Your task to perform on an android device: Open Amazon Image 0: 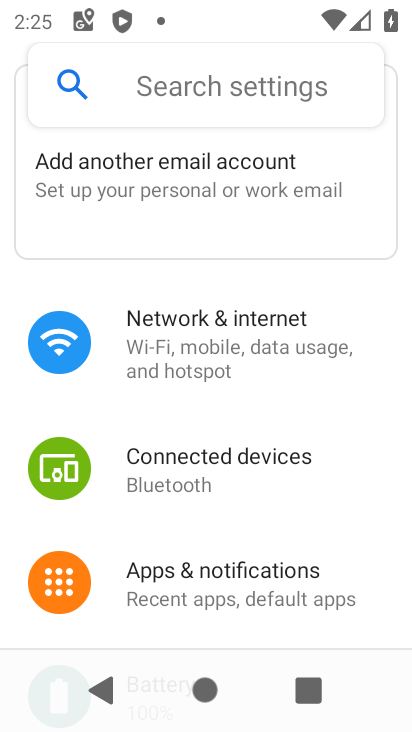
Step 0: press home button
Your task to perform on an android device: Open Amazon Image 1: 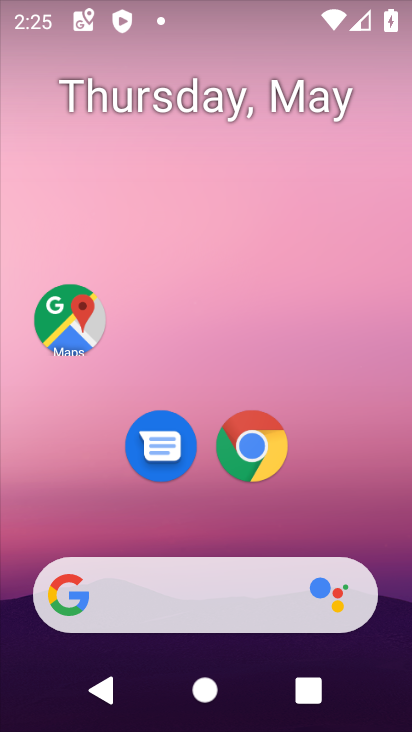
Step 1: click (246, 452)
Your task to perform on an android device: Open Amazon Image 2: 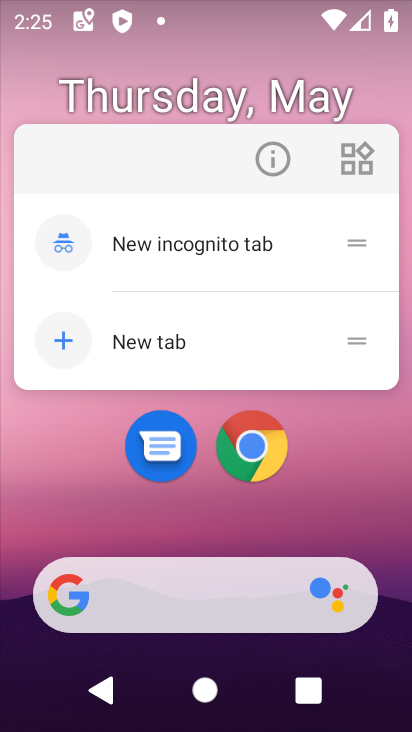
Step 2: click (242, 446)
Your task to perform on an android device: Open Amazon Image 3: 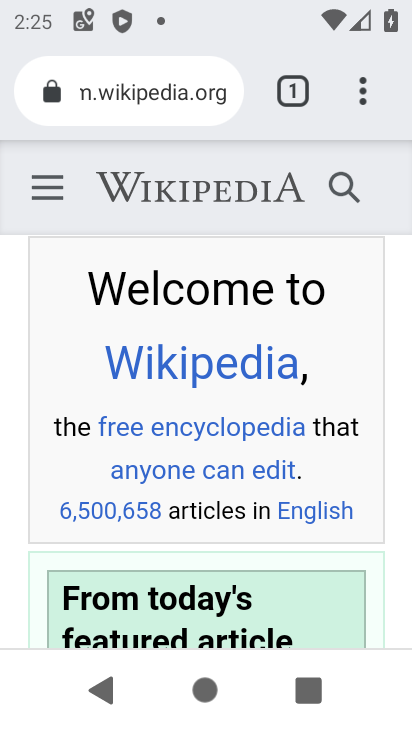
Step 3: click (112, 94)
Your task to perform on an android device: Open Amazon Image 4: 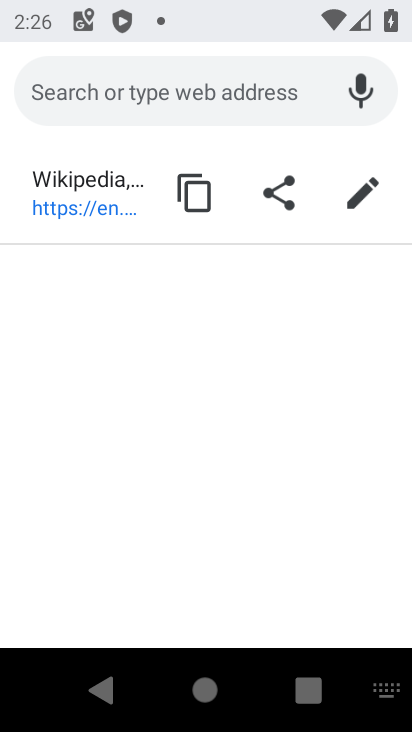
Step 4: type "amazon"
Your task to perform on an android device: Open Amazon Image 5: 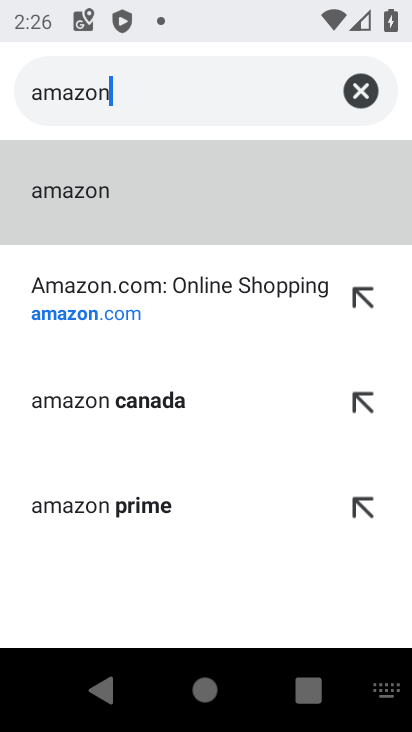
Step 5: click (75, 193)
Your task to perform on an android device: Open Amazon Image 6: 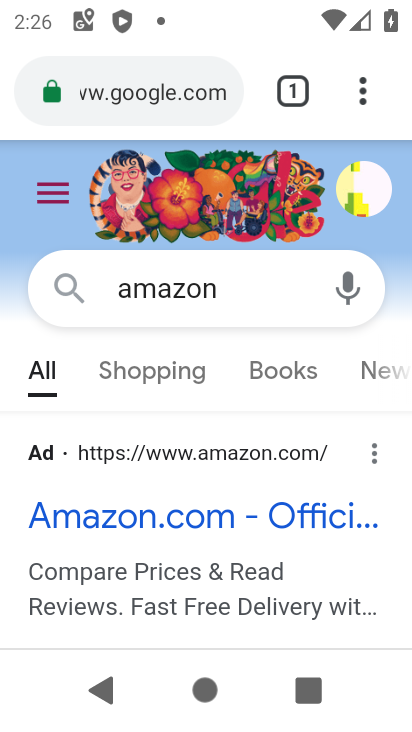
Step 6: click (124, 521)
Your task to perform on an android device: Open Amazon Image 7: 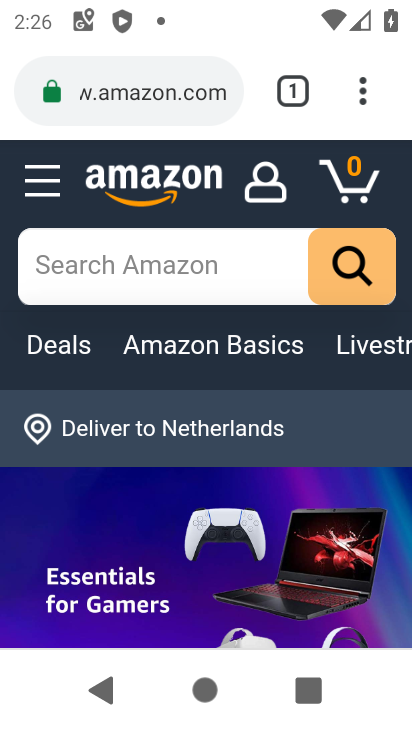
Step 7: task complete